Your task to perform on an android device: turn on priority inbox in the gmail app Image 0: 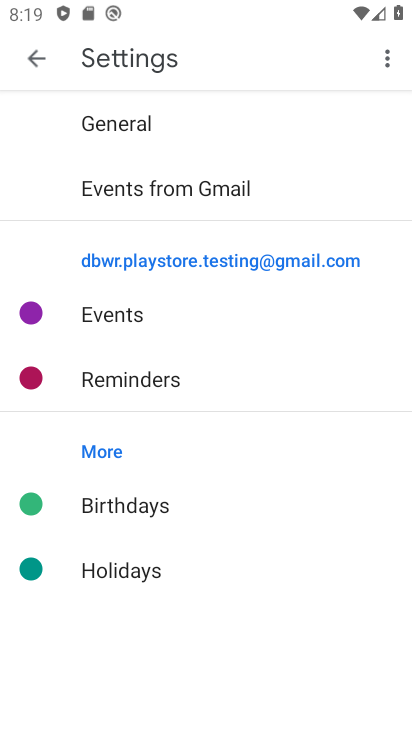
Step 0: press home button
Your task to perform on an android device: turn on priority inbox in the gmail app Image 1: 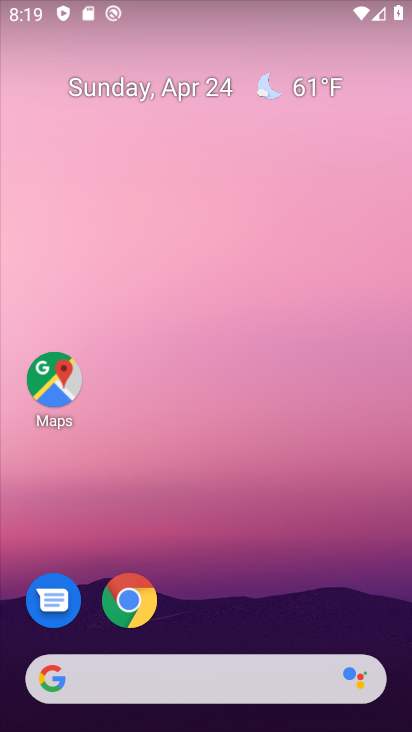
Step 1: drag from (207, 725) to (197, 74)
Your task to perform on an android device: turn on priority inbox in the gmail app Image 2: 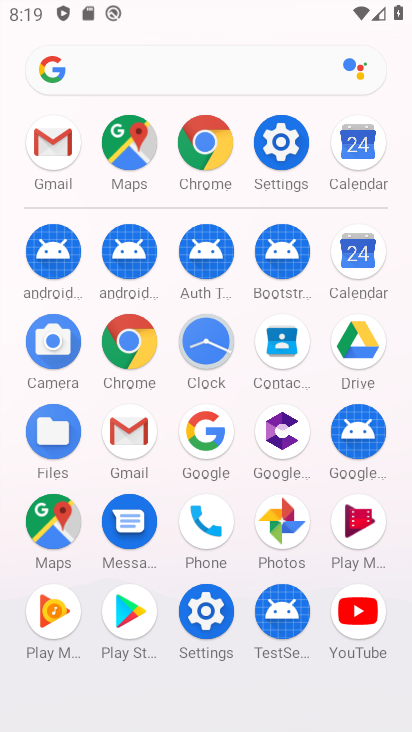
Step 2: click (134, 439)
Your task to perform on an android device: turn on priority inbox in the gmail app Image 3: 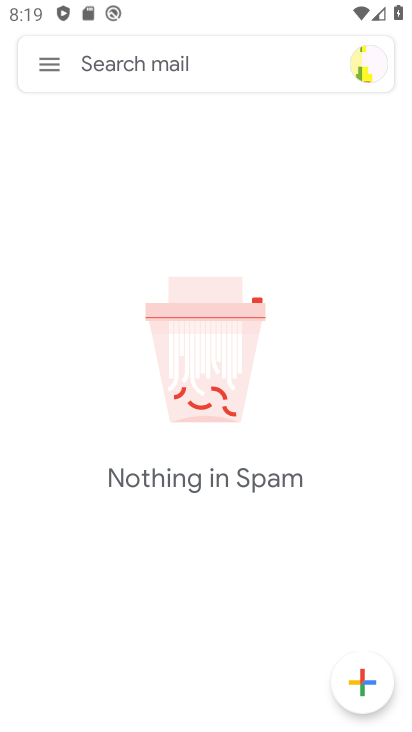
Step 3: click (48, 62)
Your task to perform on an android device: turn on priority inbox in the gmail app Image 4: 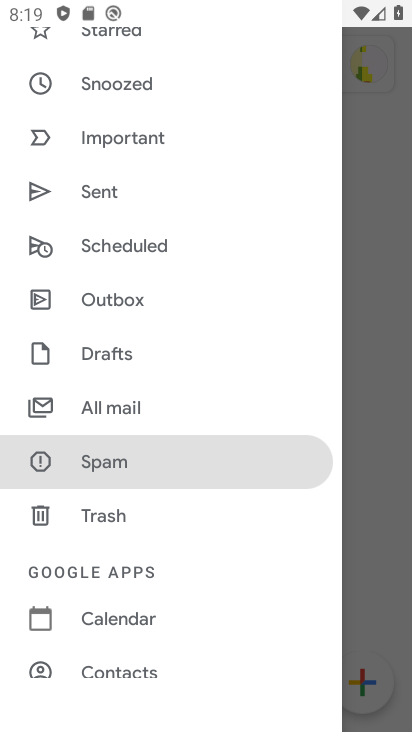
Step 4: drag from (128, 651) to (135, 359)
Your task to perform on an android device: turn on priority inbox in the gmail app Image 5: 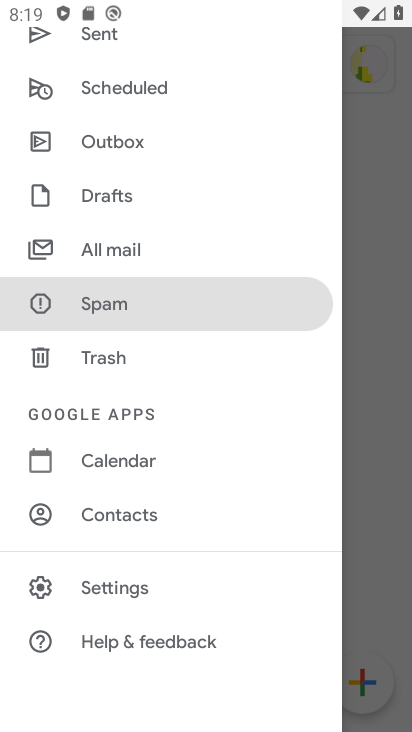
Step 5: click (126, 582)
Your task to perform on an android device: turn on priority inbox in the gmail app Image 6: 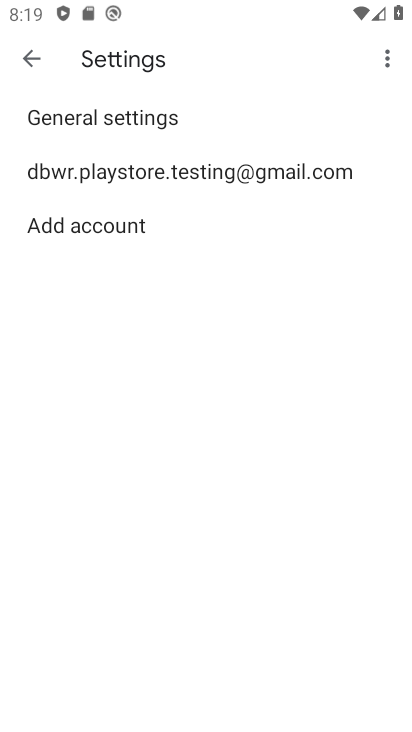
Step 6: click (103, 168)
Your task to perform on an android device: turn on priority inbox in the gmail app Image 7: 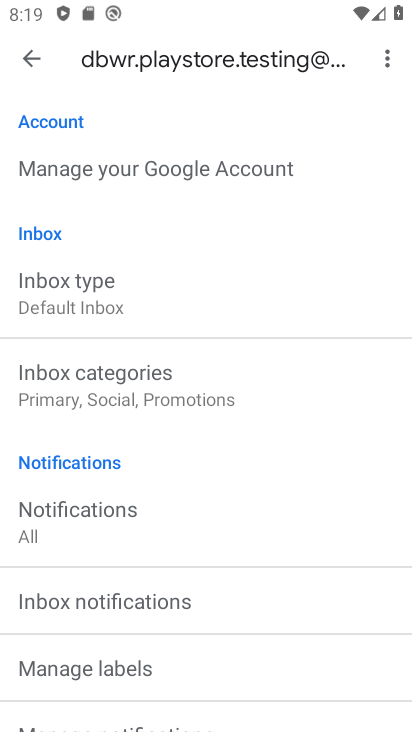
Step 7: click (73, 297)
Your task to perform on an android device: turn on priority inbox in the gmail app Image 8: 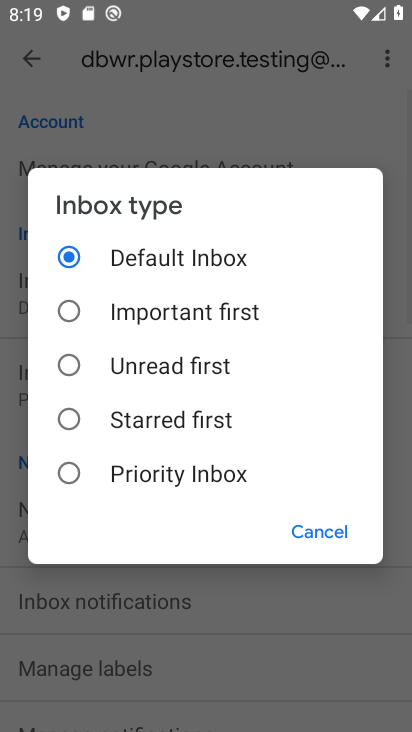
Step 8: click (67, 466)
Your task to perform on an android device: turn on priority inbox in the gmail app Image 9: 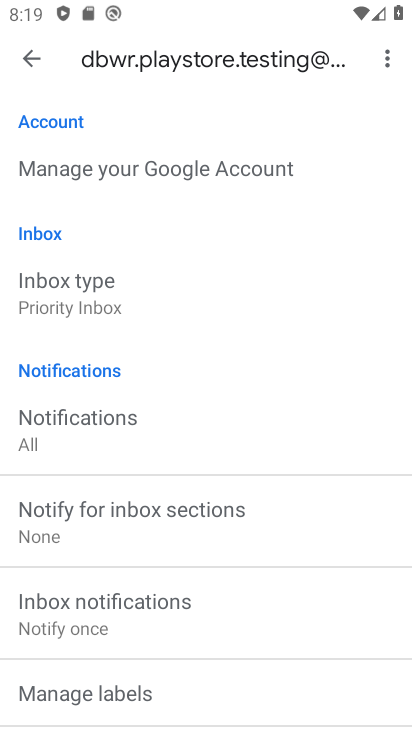
Step 9: task complete